Your task to perform on an android device: Open Wikipedia Image 0: 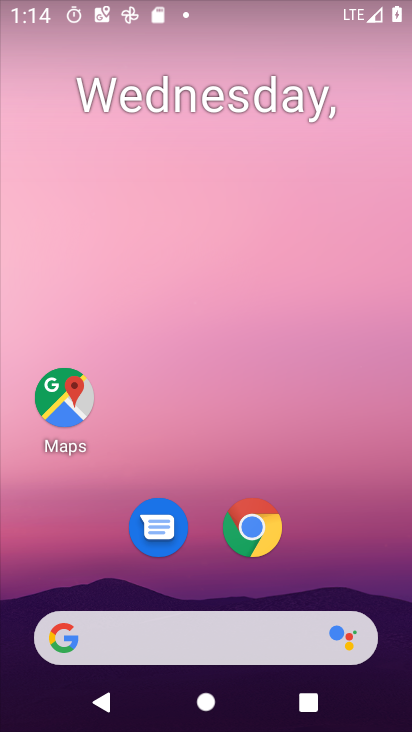
Step 0: task complete